Your task to perform on an android device: What's on my calendar today? Image 0: 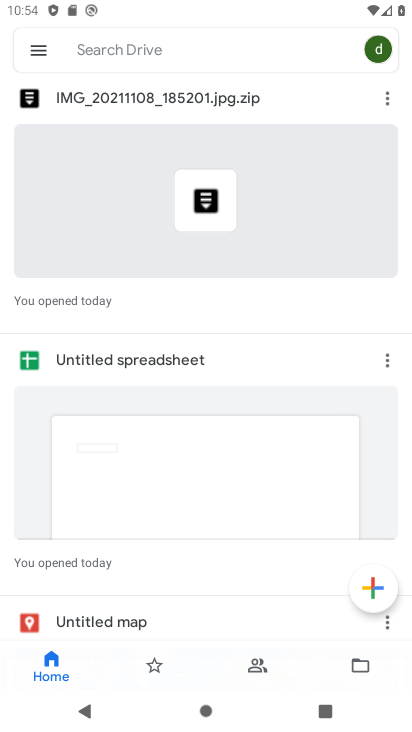
Step 0: press back button
Your task to perform on an android device: What's on my calendar today? Image 1: 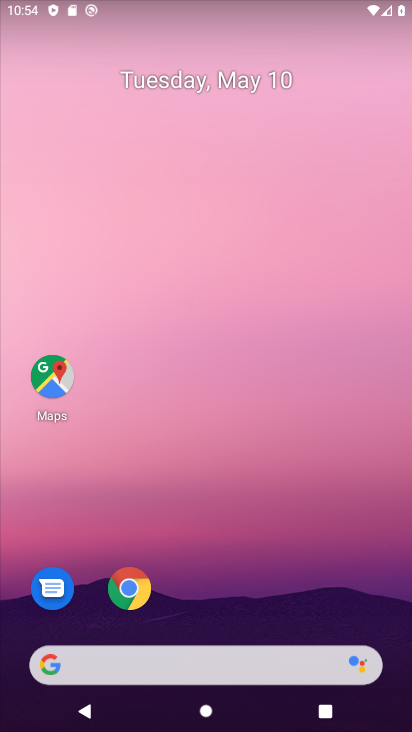
Step 1: drag from (254, 535) to (68, 89)
Your task to perform on an android device: What's on my calendar today? Image 2: 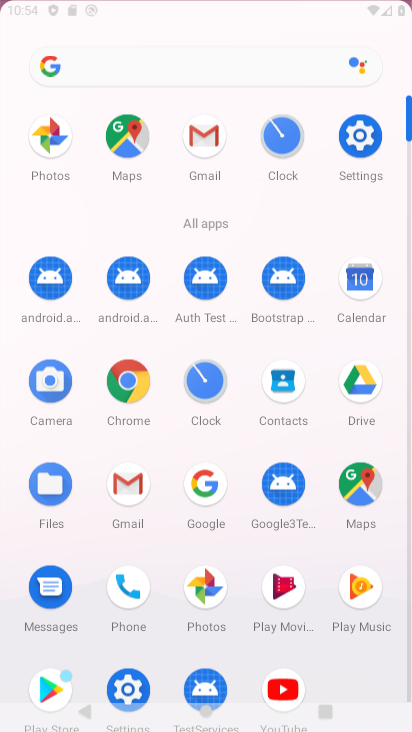
Step 2: drag from (269, 474) to (150, 194)
Your task to perform on an android device: What's on my calendar today? Image 3: 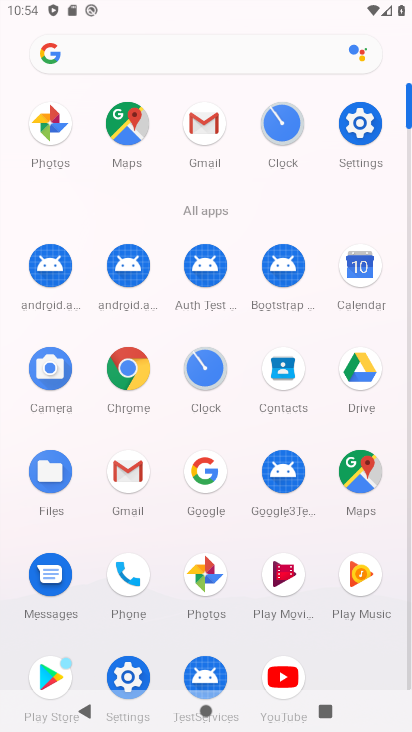
Step 3: click (357, 126)
Your task to perform on an android device: What's on my calendar today? Image 4: 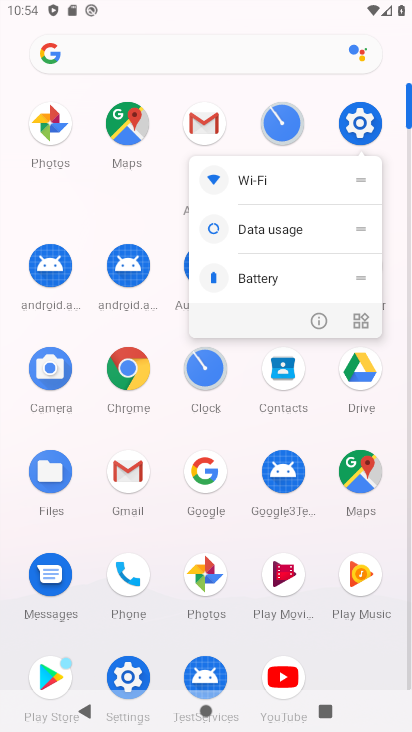
Step 4: press back button
Your task to perform on an android device: What's on my calendar today? Image 5: 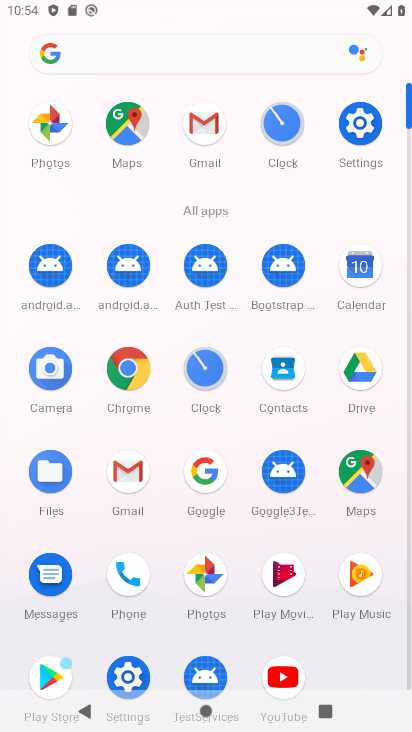
Step 5: press back button
Your task to perform on an android device: What's on my calendar today? Image 6: 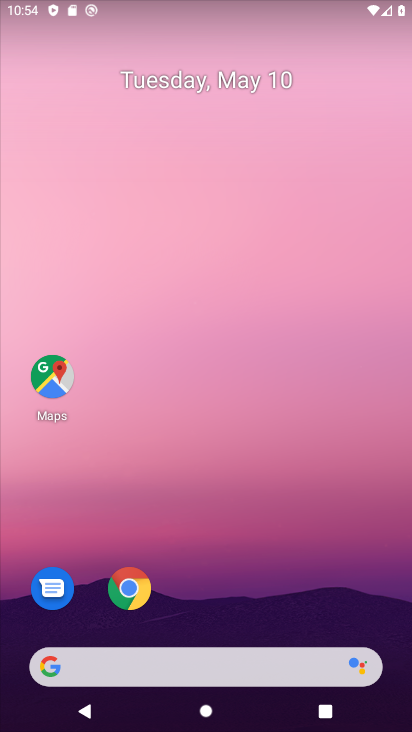
Step 6: drag from (261, 538) to (144, 37)
Your task to perform on an android device: What's on my calendar today? Image 7: 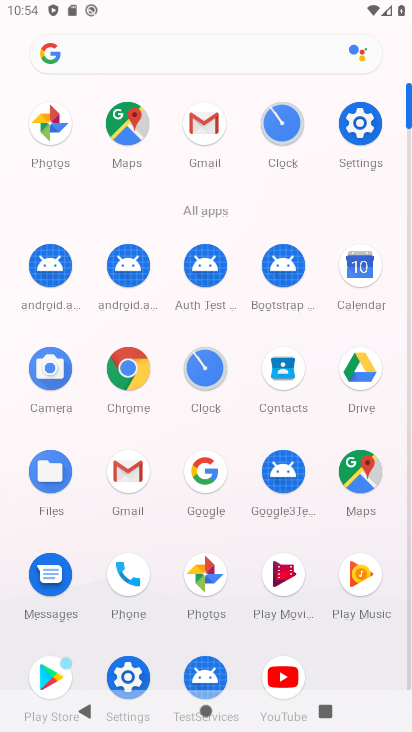
Step 7: click (365, 271)
Your task to perform on an android device: What's on my calendar today? Image 8: 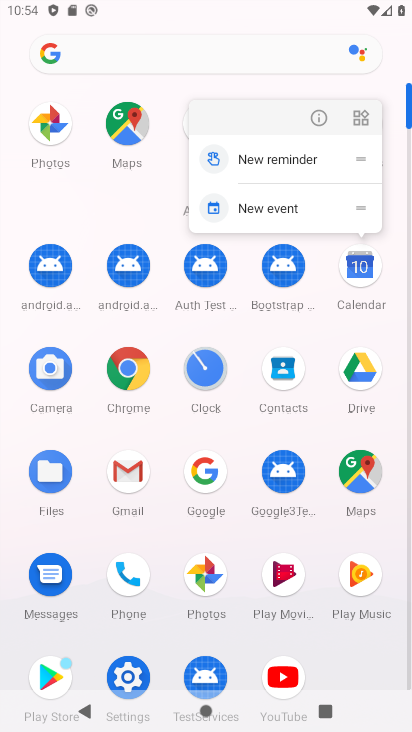
Step 8: click (362, 272)
Your task to perform on an android device: What's on my calendar today? Image 9: 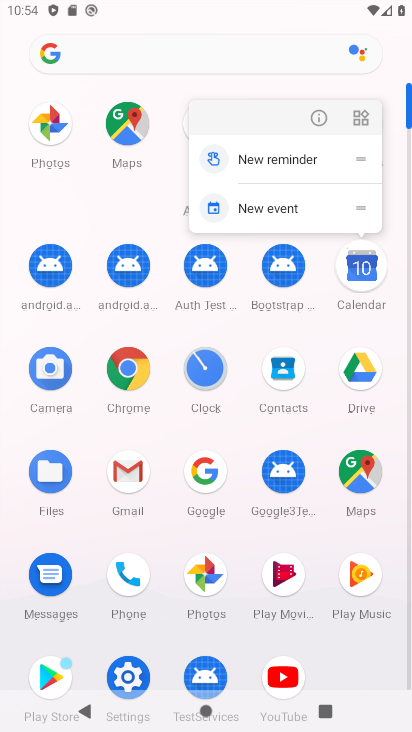
Step 9: click (360, 272)
Your task to perform on an android device: What's on my calendar today? Image 10: 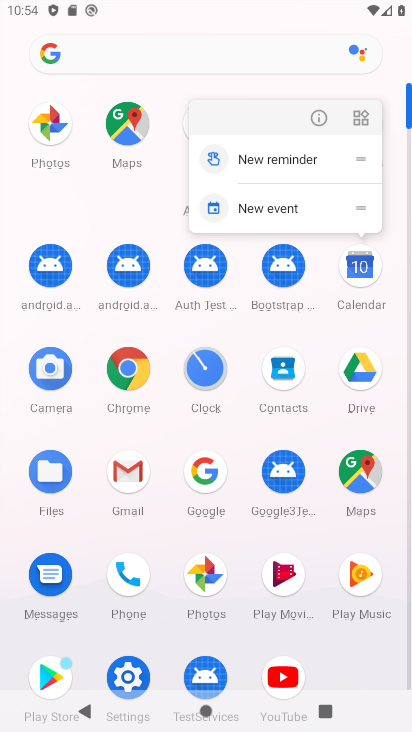
Step 10: click (359, 271)
Your task to perform on an android device: What's on my calendar today? Image 11: 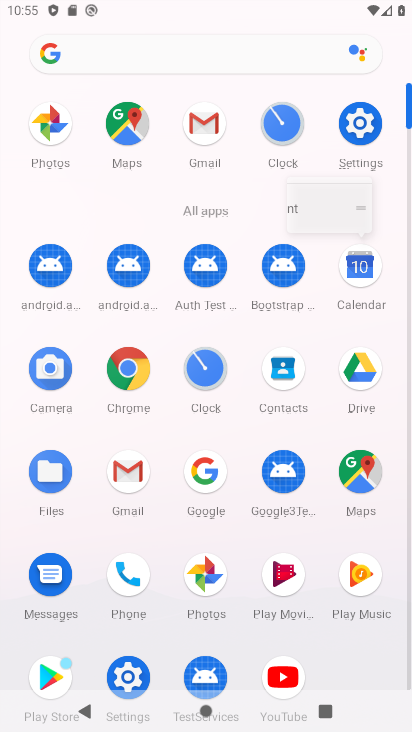
Step 11: click (360, 265)
Your task to perform on an android device: What's on my calendar today? Image 12: 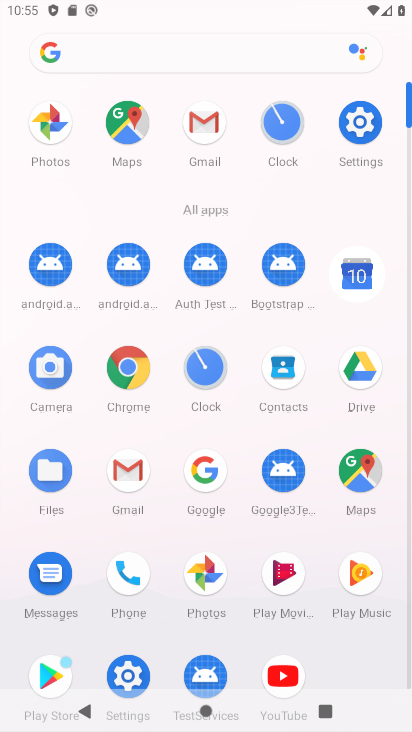
Step 12: click (360, 266)
Your task to perform on an android device: What's on my calendar today? Image 13: 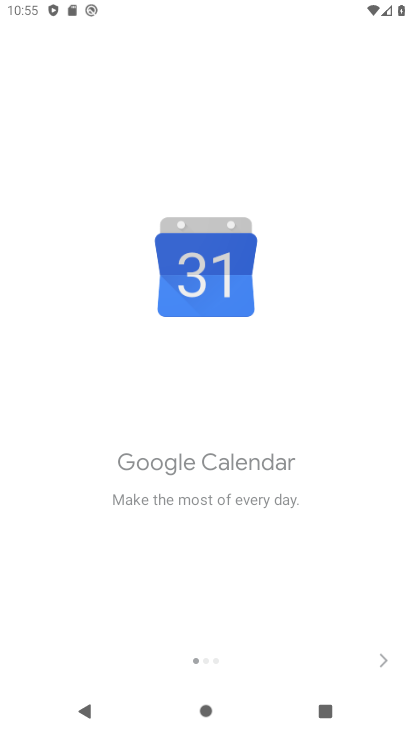
Step 13: click (360, 264)
Your task to perform on an android device: What's on my calendar today? Image 14: 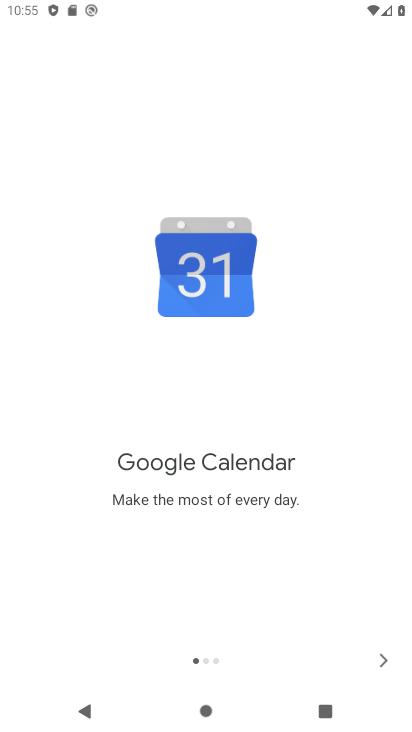
Step 14: click (368, 650)
Your task to perform on an android device: What's on my calendar today? Image 15: 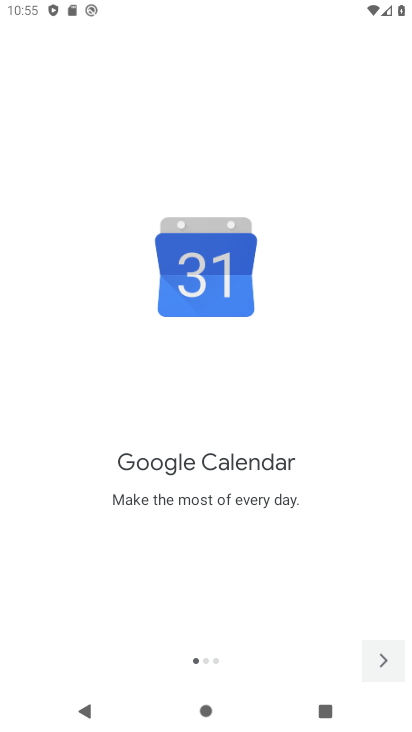
Step 15: click (372, 649)
Your task to perform on an android device: What's on my calendar today? Image 16: 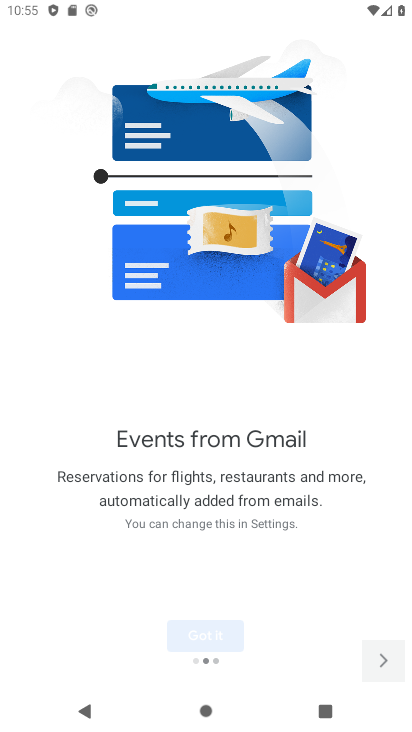
Step 16: click (377, 649)
Your task to perform on an android device: What's on my calendar today? Image 17: 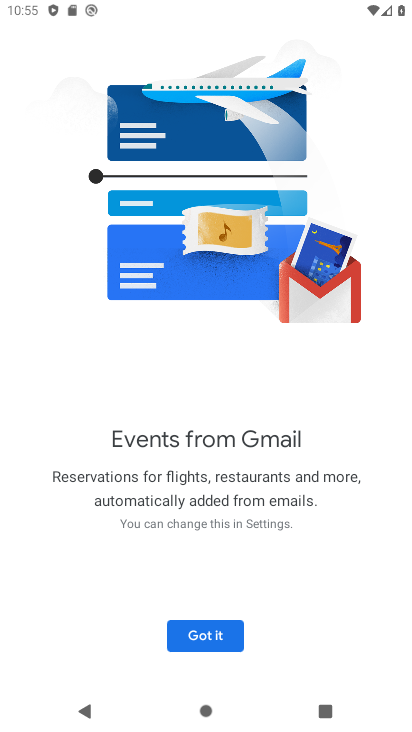
Step 17: click (377, 649)
Your task to perform on an android device: What's on my calendar today? Image 18: 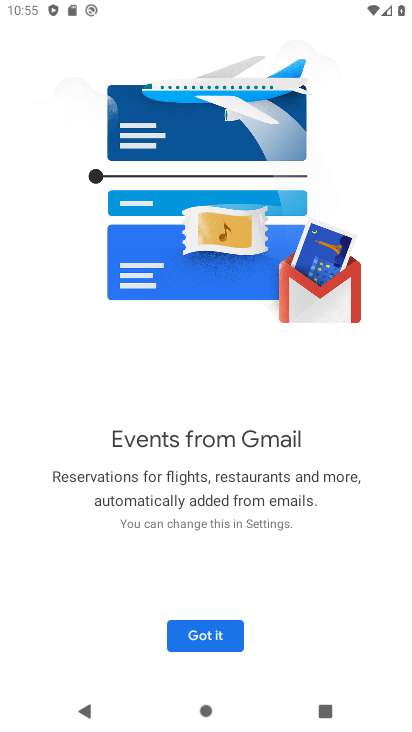
Step 18: click (230, 618)
Your task to perform on an android device: What's on my calendar today? Image 19: 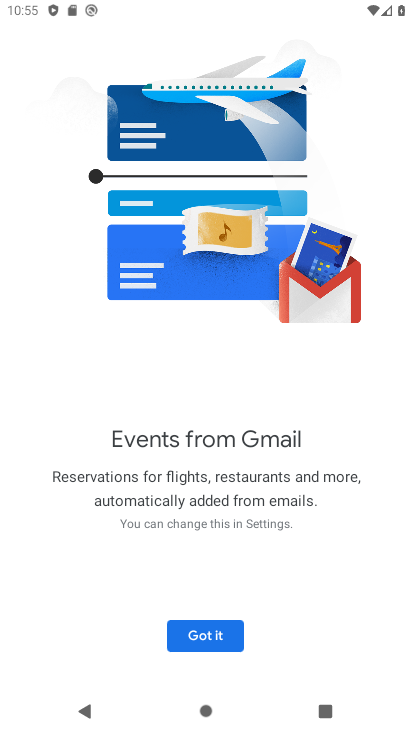
Step 19: click (226, 621)
Your task to perform on an android device: What's on my calendar today? Image 20: 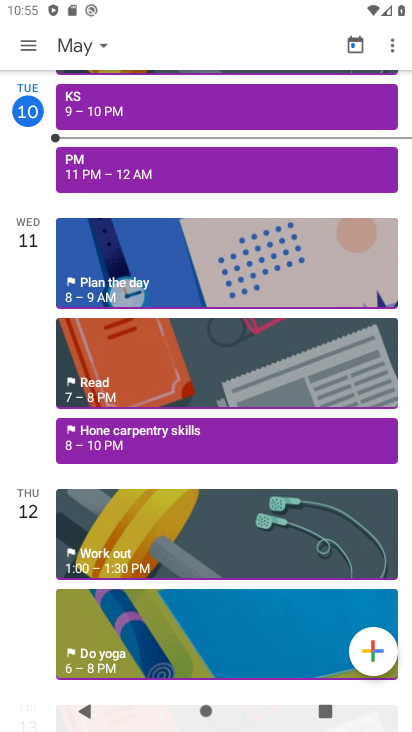
Step 20: click (104, 42)
Your task to perform on an android device: What's on my calendar today? Image 21: 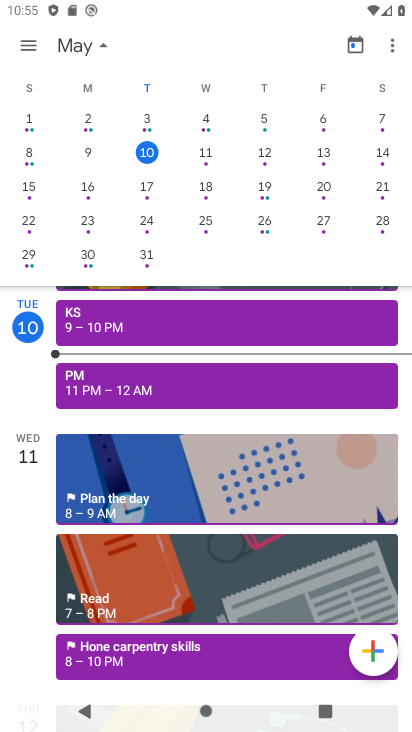
Step 21: click (35, 202)
Your task to perform on an android device: What's on my calendar today? Image 22: 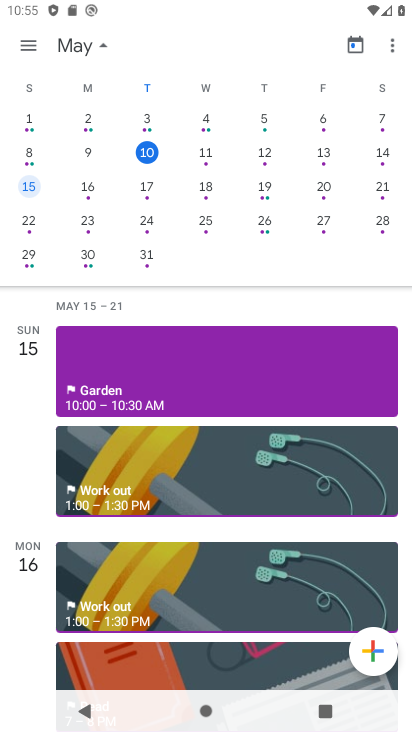
Step 22: drag from (209, 222) to (54, 174)
Your task to perform on an android device: What's on my calendar today? Image 23: 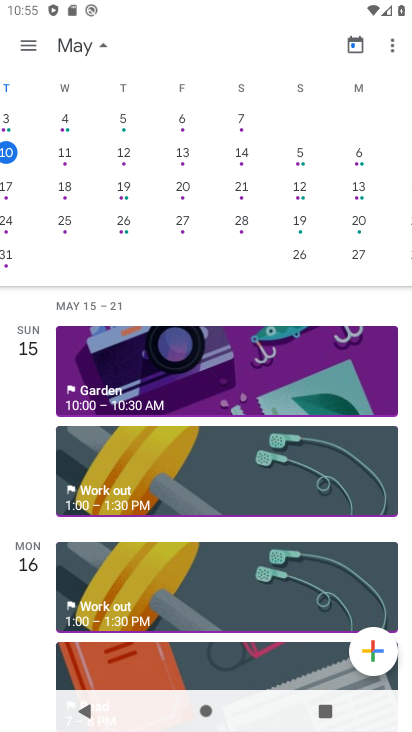
Step 23: drag from (219, 172) to (44, 158)
Your task to perform on an android device: What's on my calendar today? Image 24: 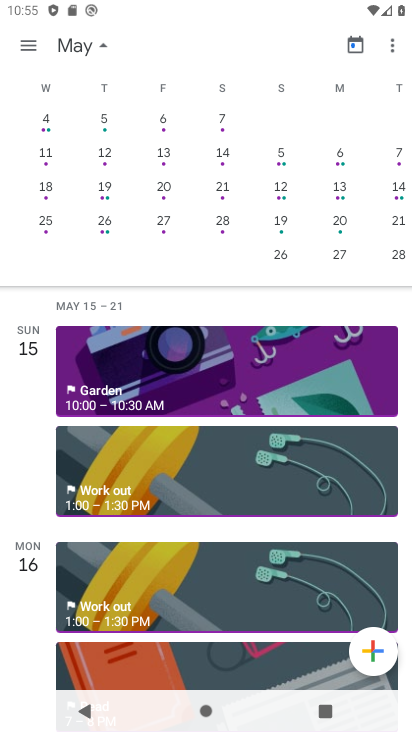
Step 24: drag from (141, 150) to (56, 120)
Your task to perform on an android device: What's on my calendar today? Image 25: 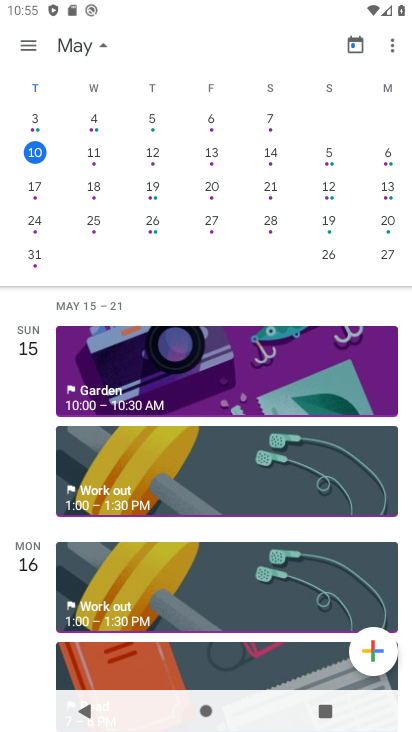
Step 25: click (18, 145)
Your task to perform on an android device: What's on my calendar today? Image 26: 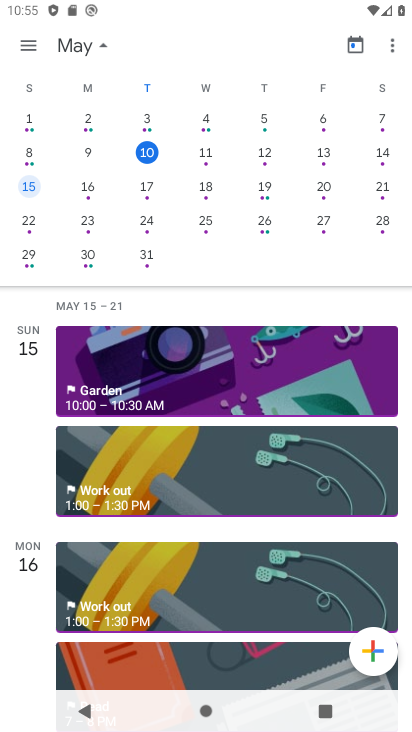
Step 26: task complete